Your task to perform on an android device: Open Youtube and go to "Your channel" Image 0: 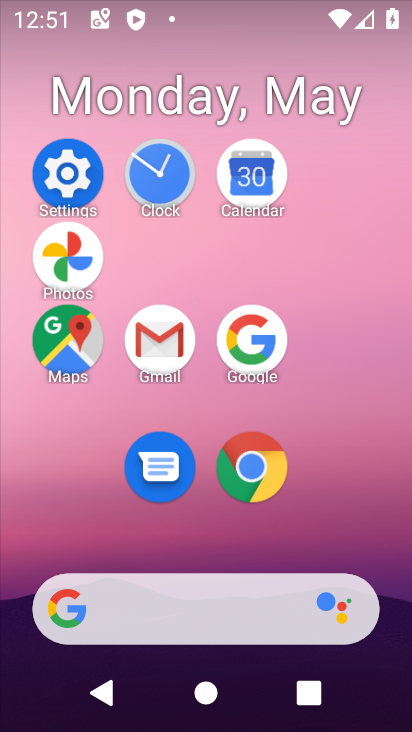
Step 0: drag from (322, 540) to (279, 23)
Your task to perform on an android device: Open Youtube and go to "Your channel" Image 1: 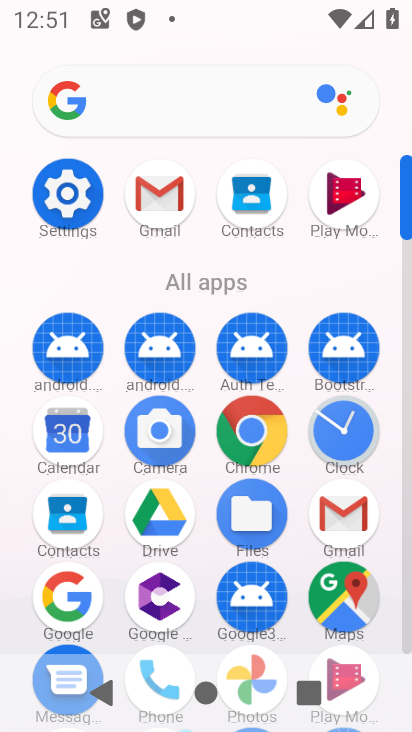
Step 1: drag from (301, 475) to (287, 130)
Your task to perform on an android device: Open Youtube and go to "Your channel" Image 2: 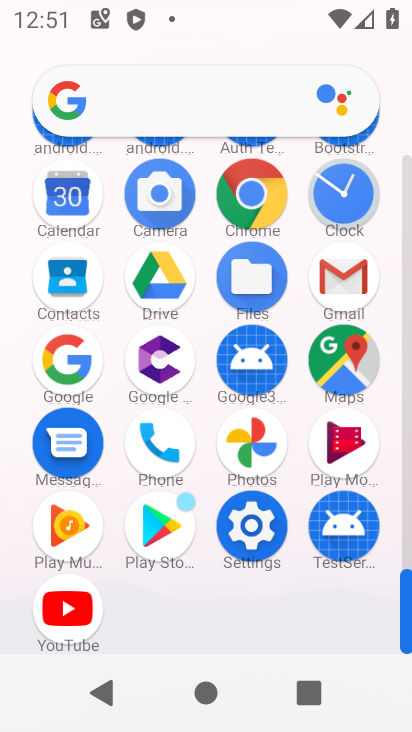
Step 2: drag from (56, 605) to (151, 278)
Your task to perform on an android device: Open Youtube and go to "Your channel" Image 3: 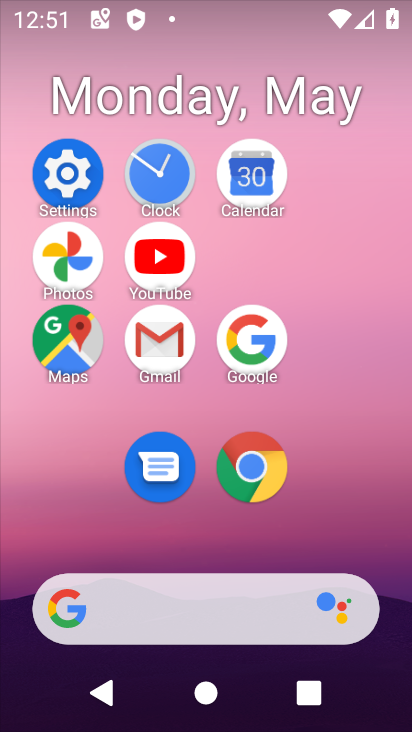
Step 3: click (169, 262)
Your task to perform on an android device: Open Youtube and go to "Your channel" Image 4: 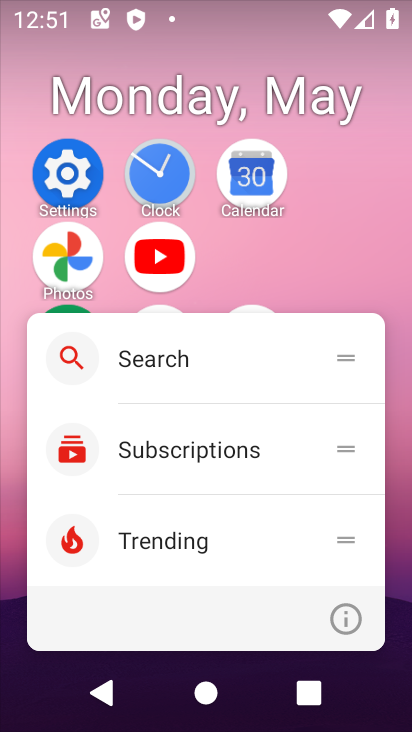
Step 4: click (169, 262)
Your task to perform on an android device: Open Youtube and go to "Your channel" Image 5: 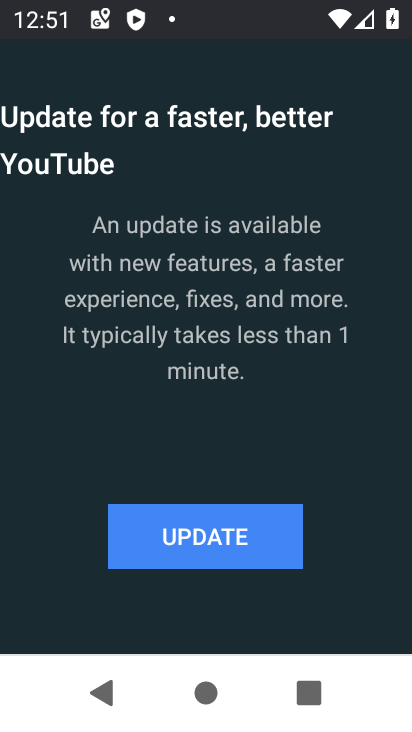
Step 5: click (212, 522)
Your task to perform on an android device: Open Youtube and go to "Your channel" Image 6: 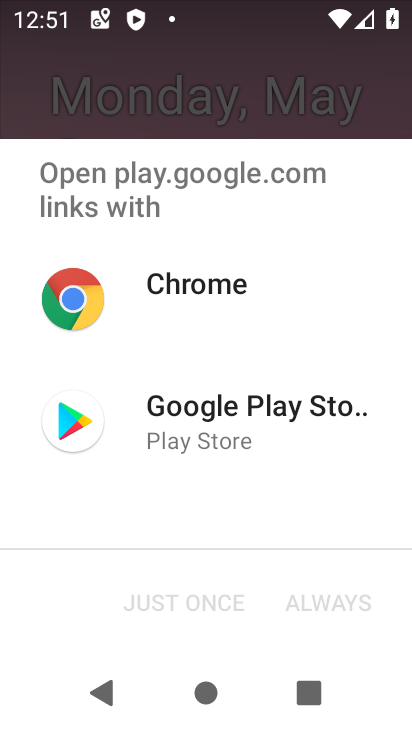
Step 6: click (306, 405)
Your task to perform on an android device: Open Youtube and go to "Your channel" Image 7: 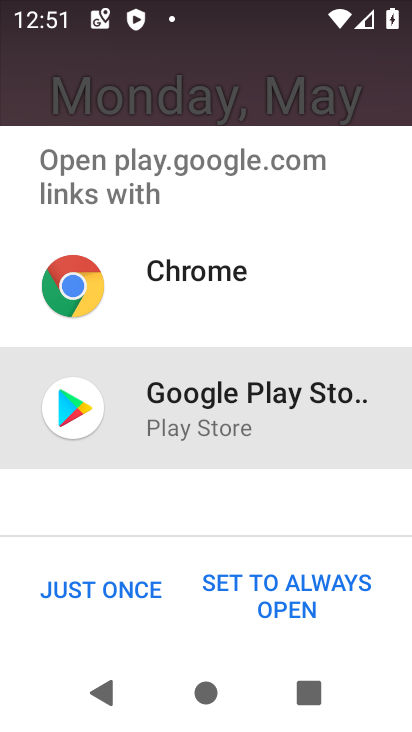
Step 7: click (217, 427)
Your task to perform on an android device: Open Youtube and go to "Your channel" Image 8: 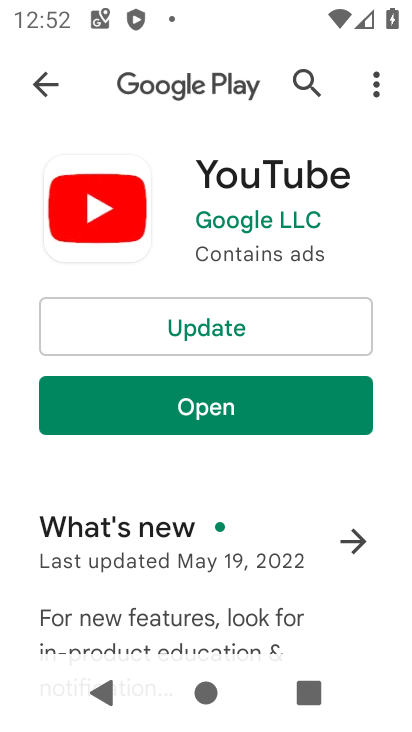
Step 8: click (254, 323)
Your task to perform on an android device: Open Youtube and go to "Your channel" Image 9: 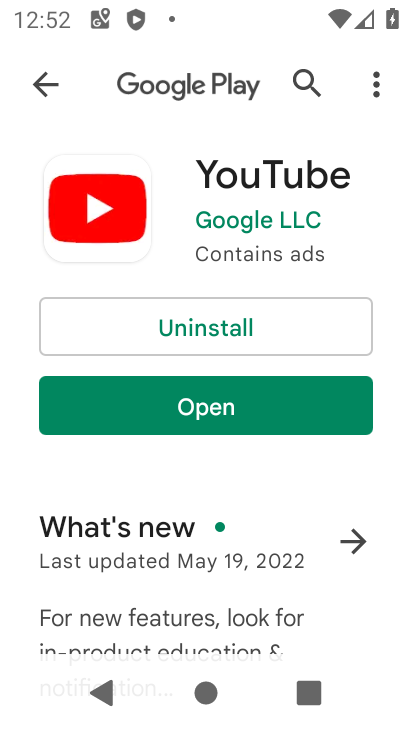
Step 9: click (281, 412)
Your task to perform on an android device: Open Youtube and go to "Your channel" Image 10: 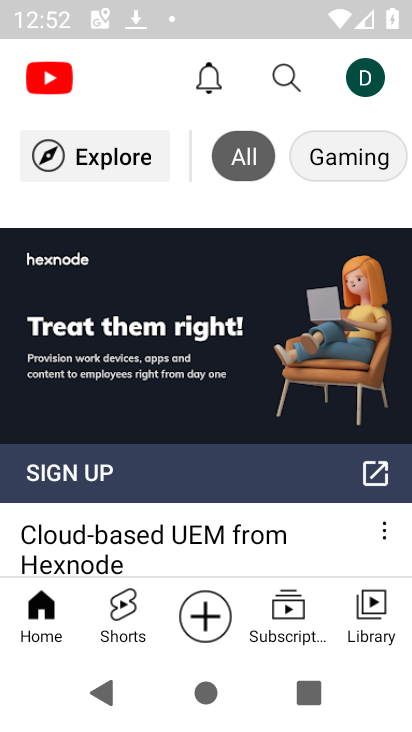
Step 10: click (371, 60)
Your task to perform on an android device: Open Youtube and go to "Your channel" Image 11: 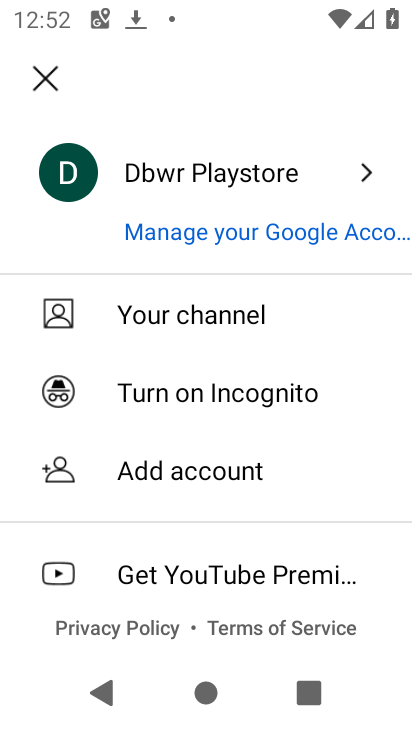
Step 11: click (269, 313)
Your task to perform on an android device: Open Youtube and go to "Your channel" Image 12: 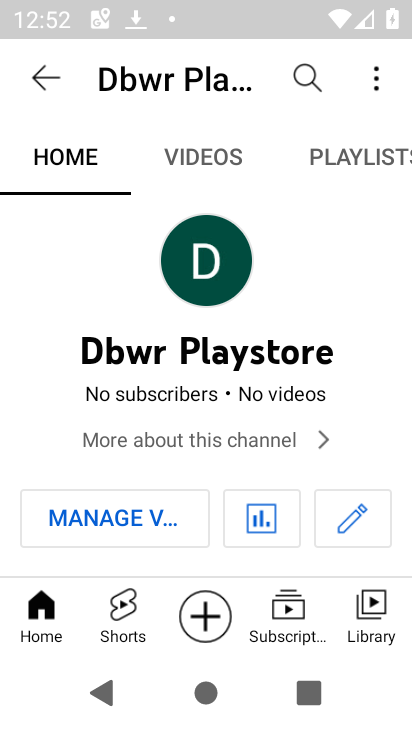
Step 12: task complete